Your task to perform on an android device: Open the map Image 0: 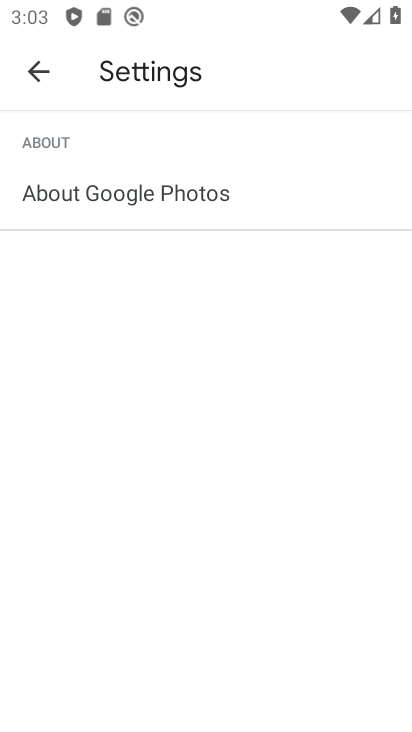
Step 0: press home button
Your task to perform on an android device: Open the map Image 1: 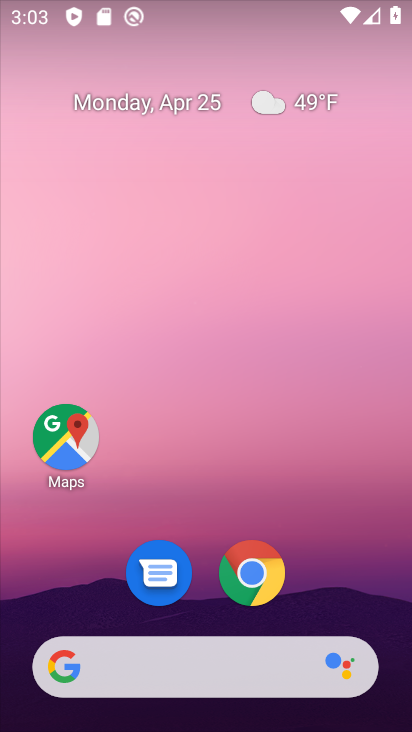
Step 1: click (67, 429)
Your task to perform on an android device: Open the map Image 2: 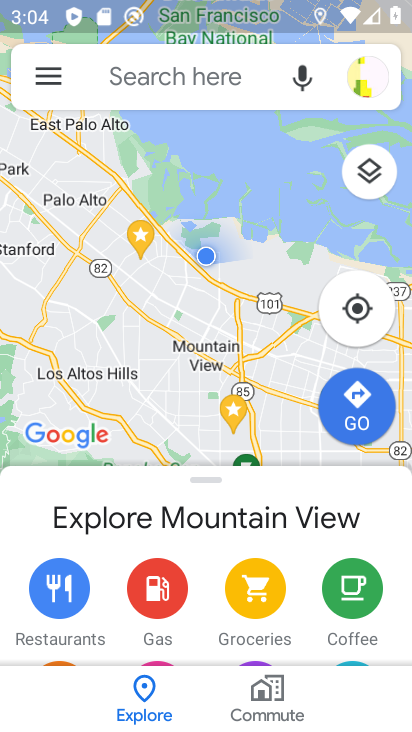
Step 2: task complete